Your task to perform on an android device: add a label to a message in the gmail app Image 0: 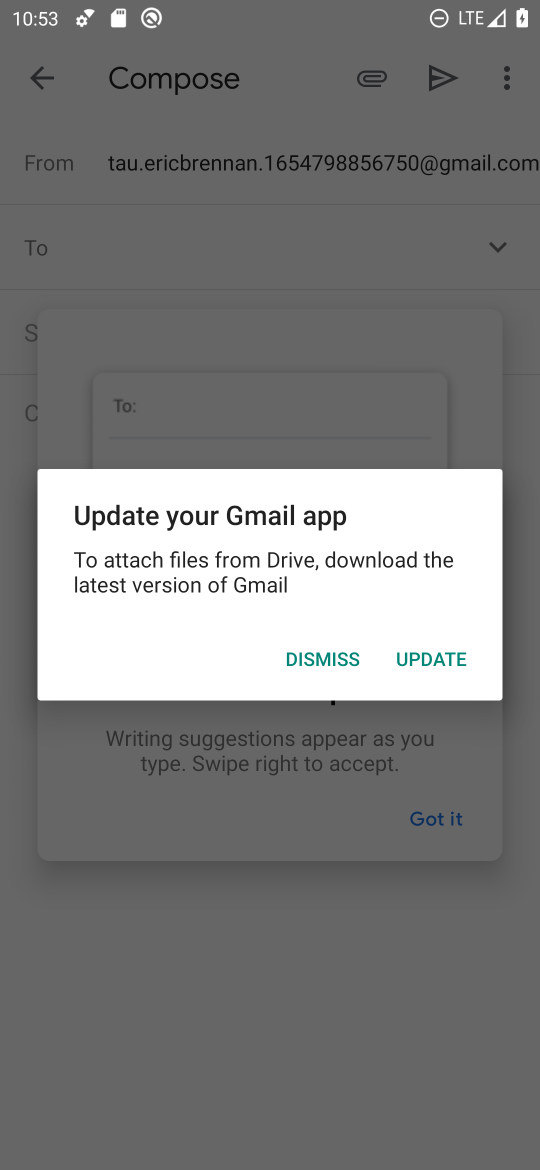
Step 0: press home button
Your task to perform on an android device: add a label to a message in the gmail app Image 1: 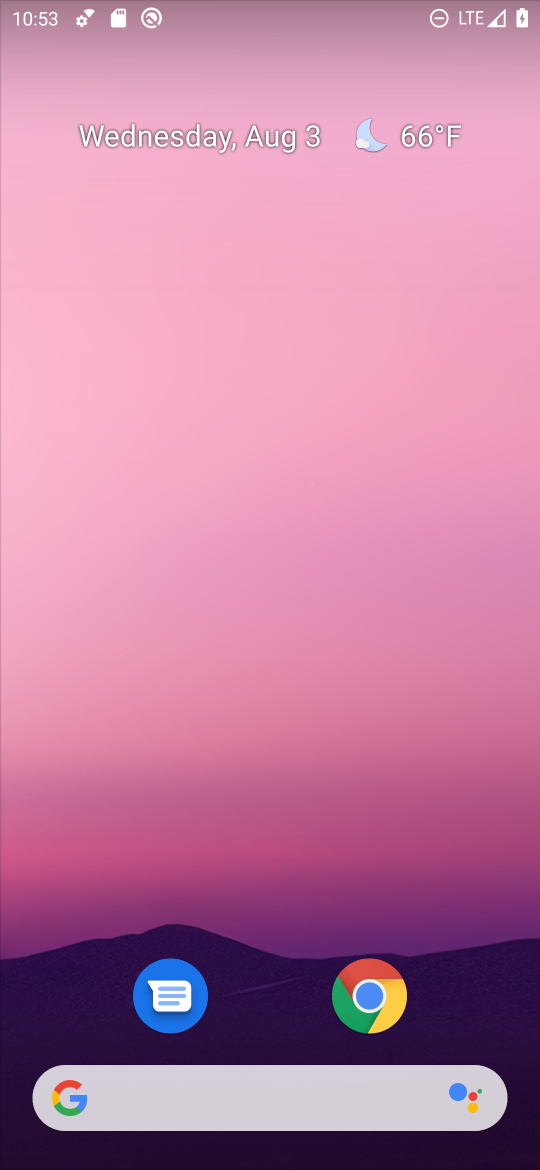
Step 1: drag from (278, 818) to (323, 161)
Your task to perform on an android device: add a label to a message in the gmail app Image 2: 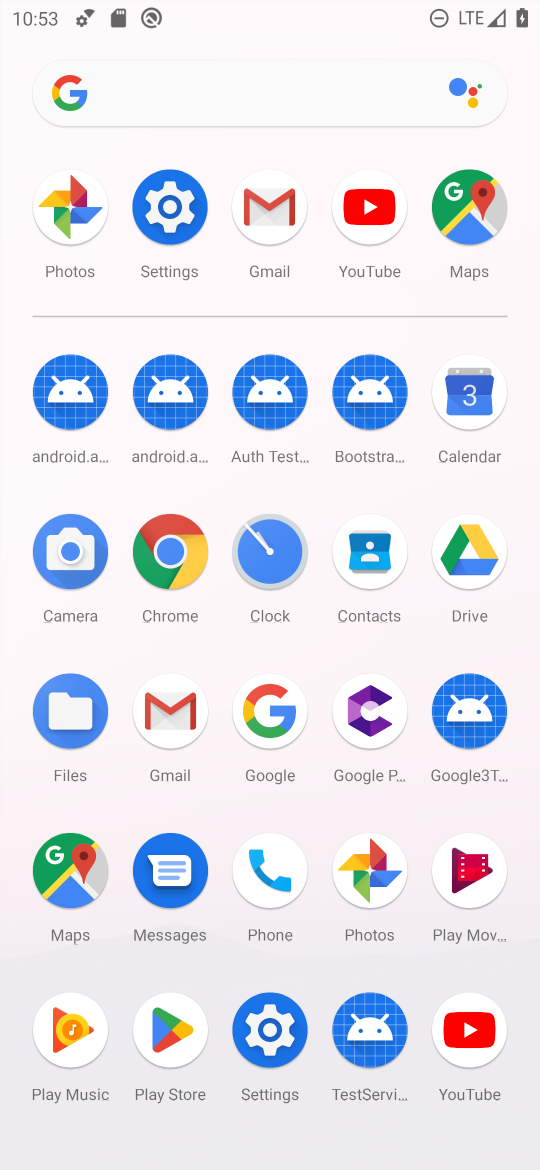
Step 2: click (284, 200)
Your task to perform on an android device: add a label to a message in the gmail app Image 3: 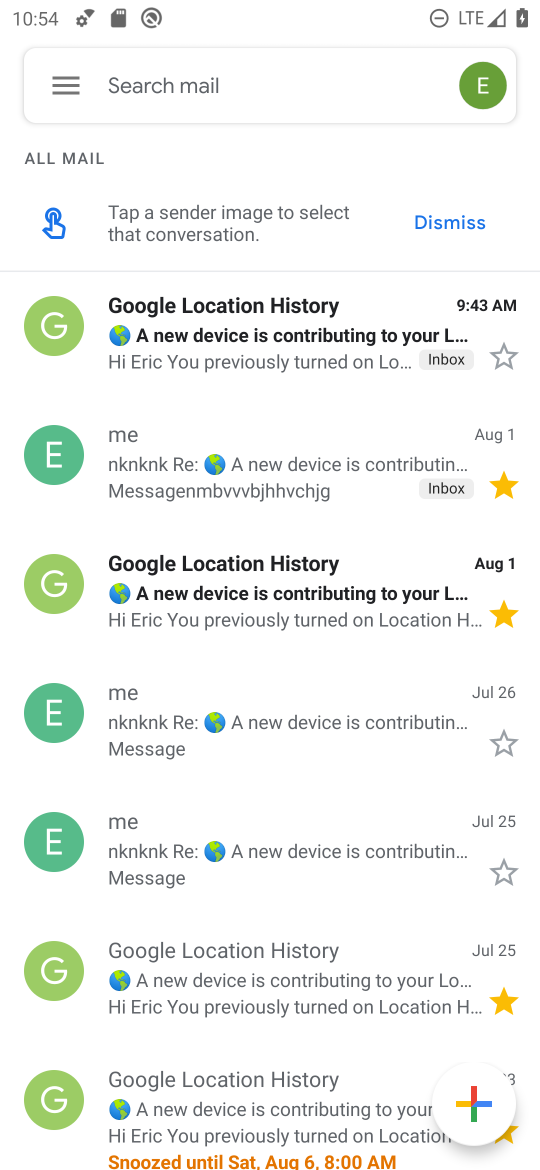
Step 3: click (311, 458)
Your task to perform on an android device: add a label to a message in the gmail app Image 4: 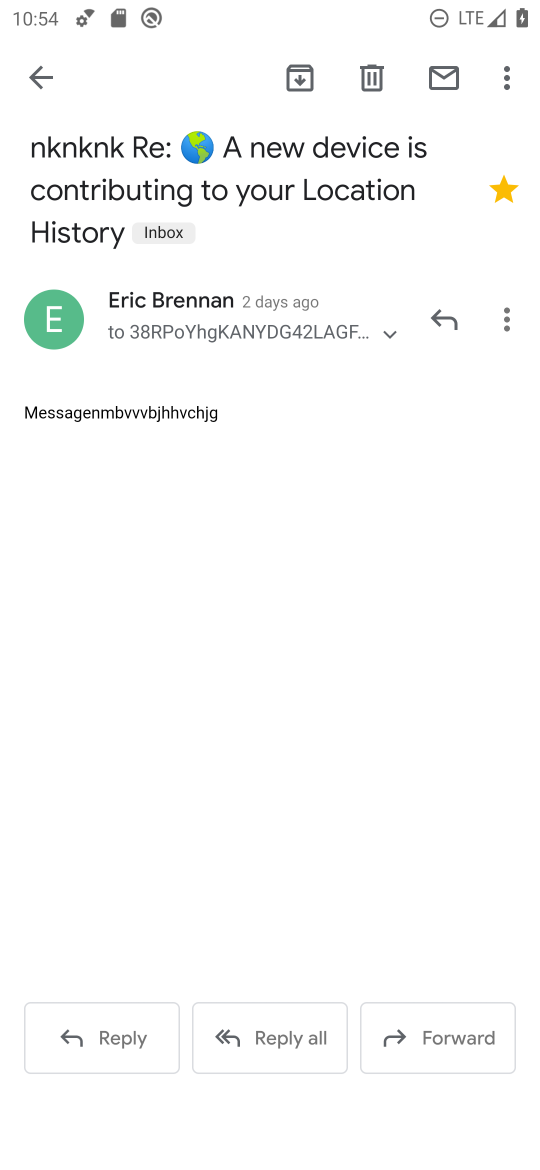
Step 4: click (504, 80)
Your task to perform on an android device: add a label to a message in the gmail app Image 5: 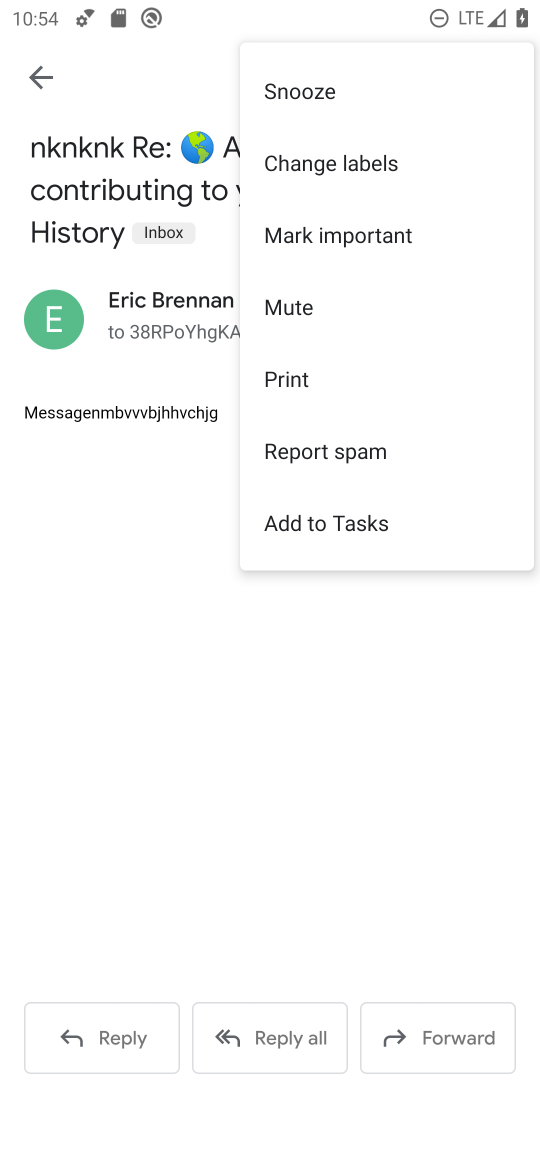
Step 5: click (407, 163)
Your task to perform on an android device: add a label to a message in the gmail app Image 6: 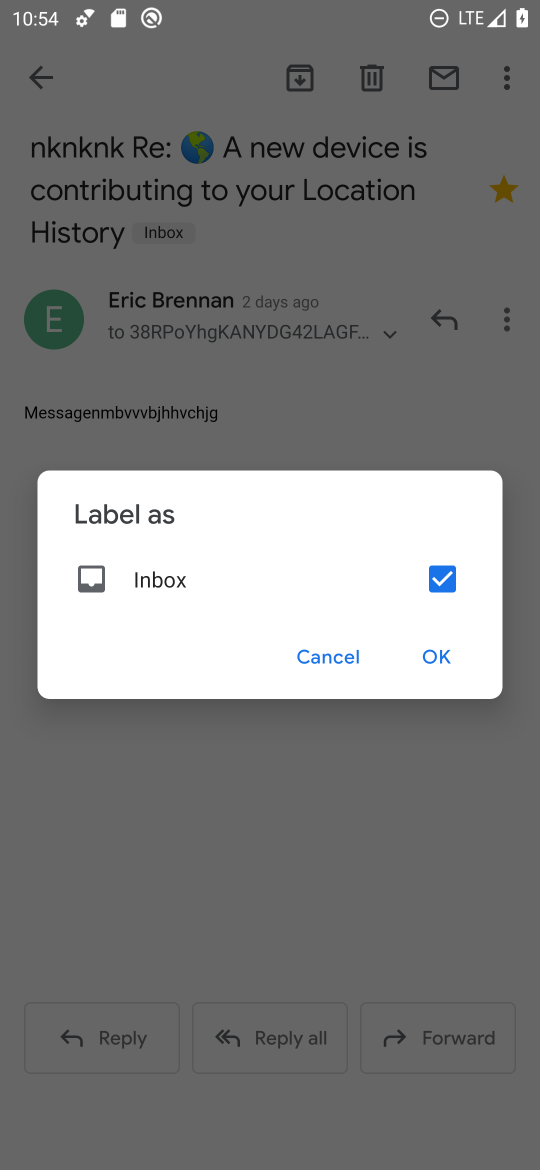
Step 6: click (442, 653)
Your task to perform on an android device: add a label to a message in the gmail app Image 7: 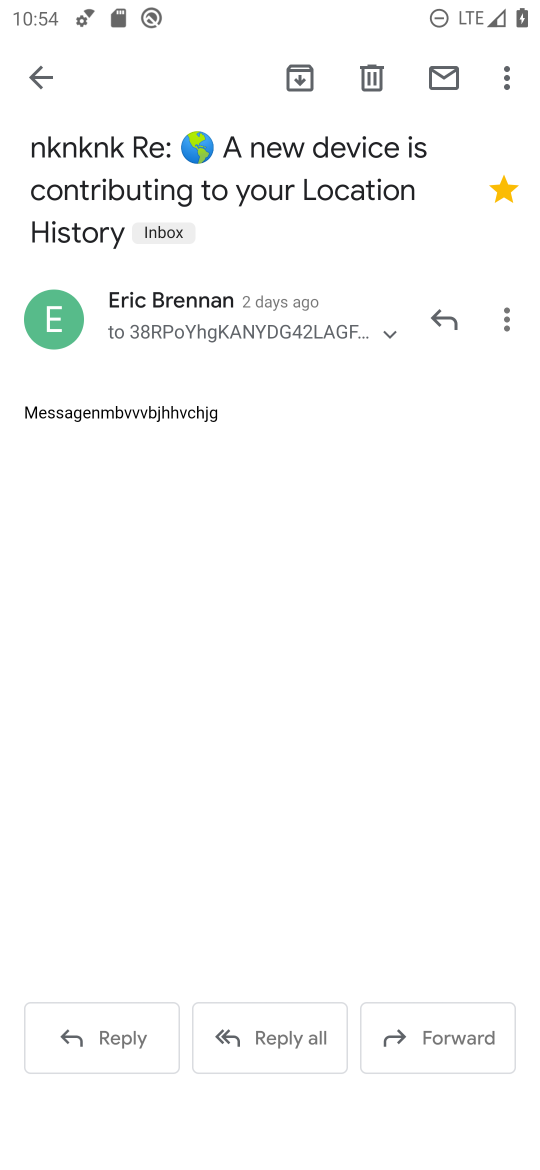
Step 7: task complete